Your task to perform on an android device: What's the weather today? Image 0: 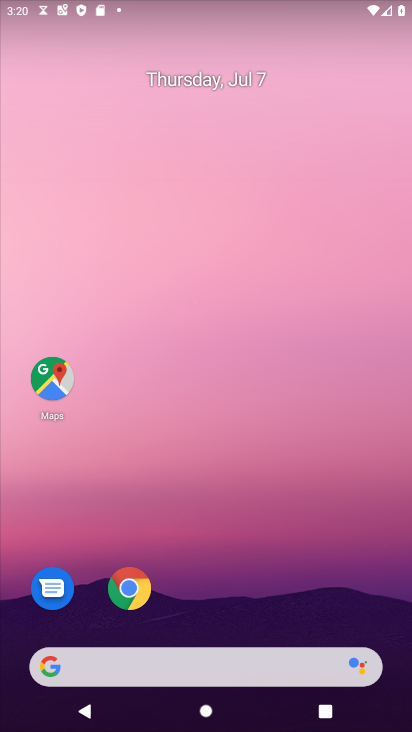
Step 0: drag from (239, 626) to (191, 204)
Your task to perform on an android device: What's the weather today? Image 1: 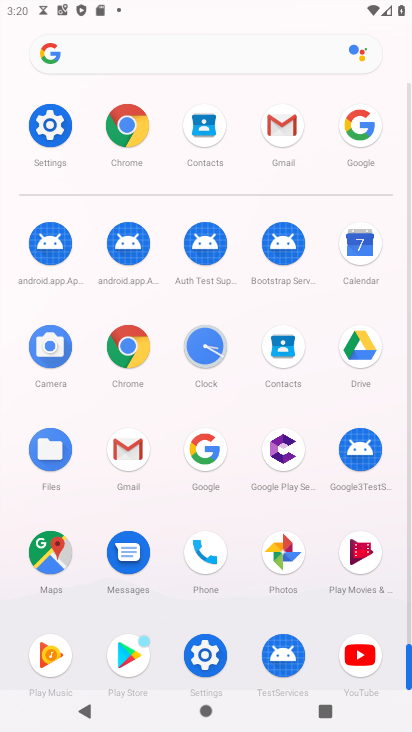
Step 1: click (357, 122)
Your task to perform on an android device: What's the weather today? Image 2: 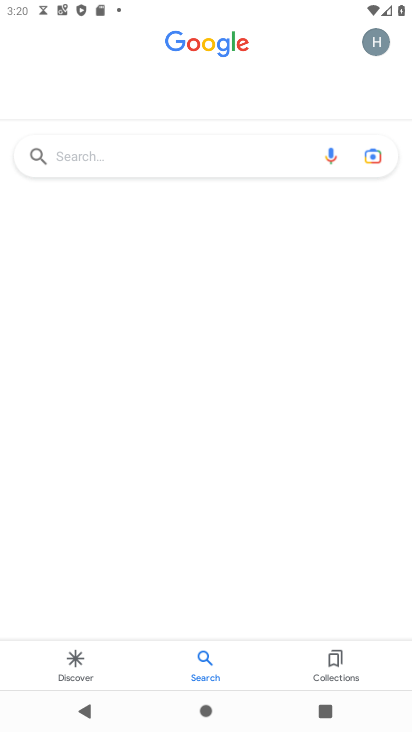
Step 2: click (223, 160)
Your task to perform on an android device: What's the weather today? Image 3: 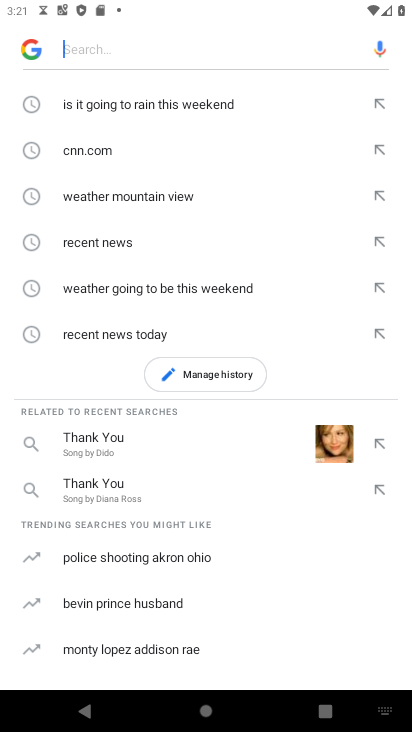
Step 3: type "weather today"
Your task to perform on an android device: What's the weather today? Image 4: 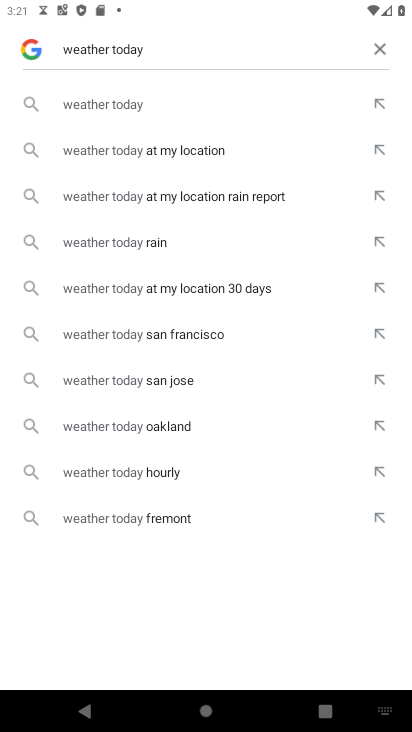
Step 4: click (127, 96)
Your task to perform on an android device: What's the weather today? Image 5: 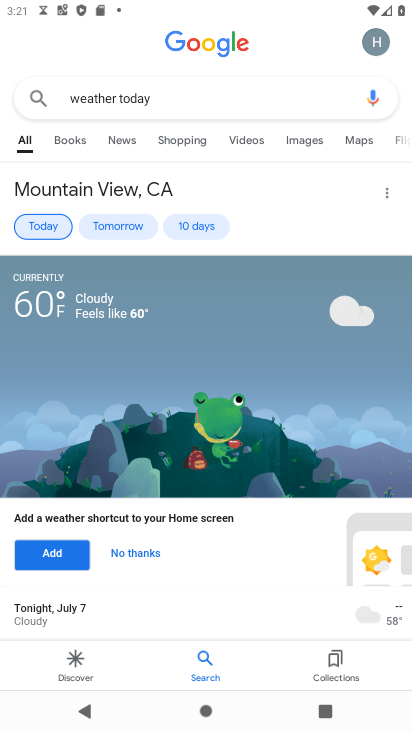
Step 5: task complete